Your task to perform on an android device: Go to notification settings Image 0: 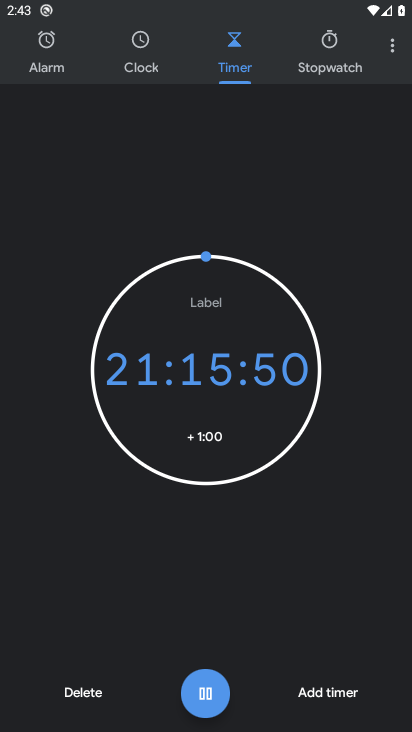
Step 0: press home button
Your task to perform on an android device: Go to notification settings Image 1: 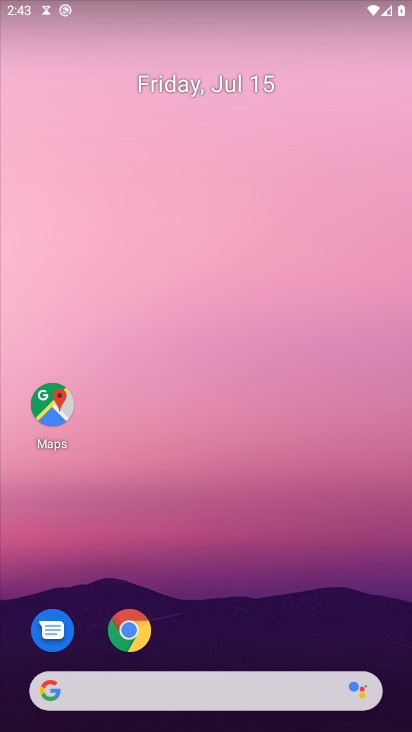
Step 1: drag from (200, 596) to (187, 13)
Your task to perform on an android device: Go to notification settings Image 2: 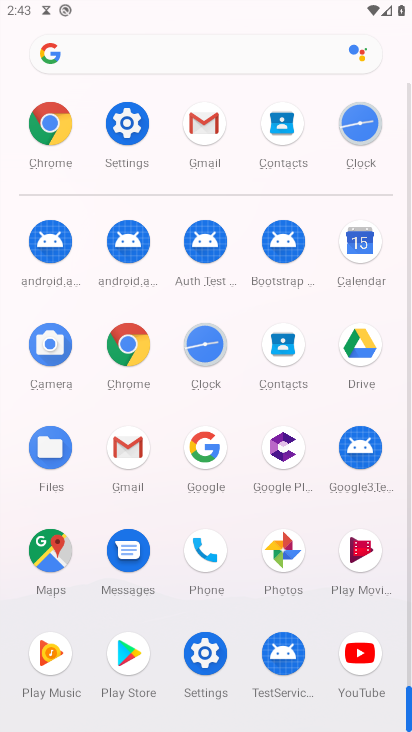
Step 2: click (128, 130)
Your task to perform on an android device: Go to notification settings Image 3: 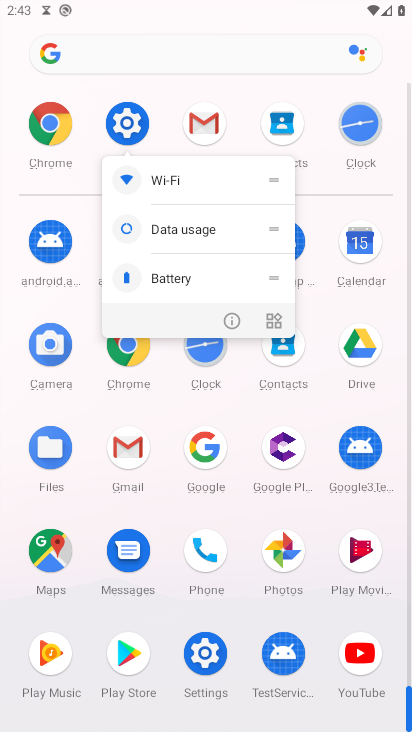
Step 3: click (128, 130)
Your task to perform on an android device: Go to notification settings Image 4: 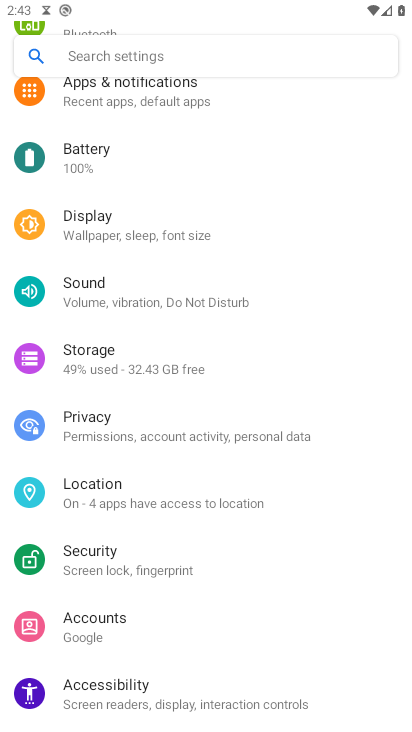
Step 4: click (123, 92)
Your task to perform on an android device: Go to notification settings Image 5: 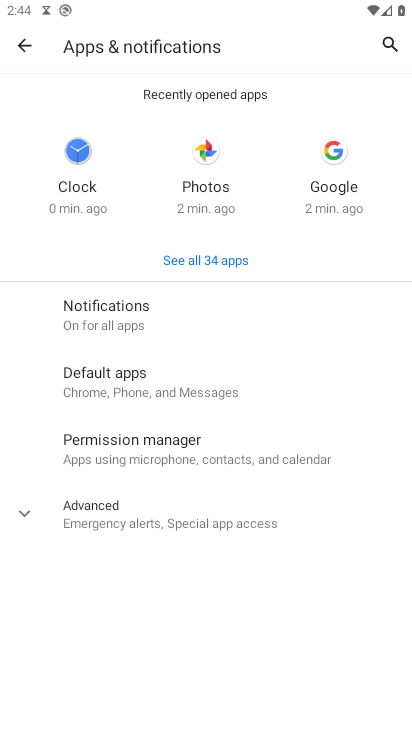
Step 5: click (92, 327)
Your task to perform on an android device: Go to notification settings Image 6: 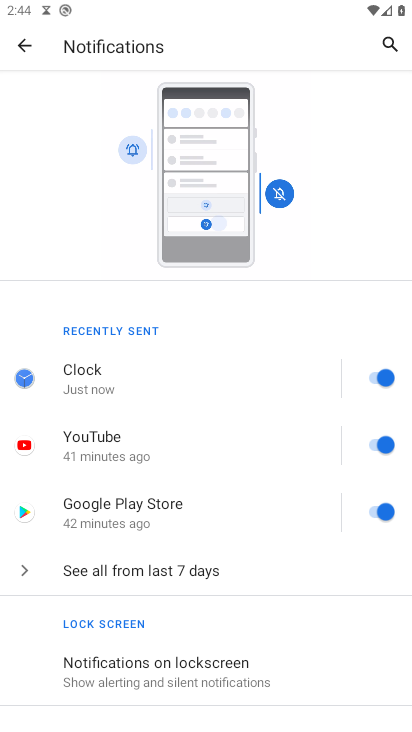
Step 6: task complete